Your task to perform on an android device: find snoozed emails in the gmail app Image 0: 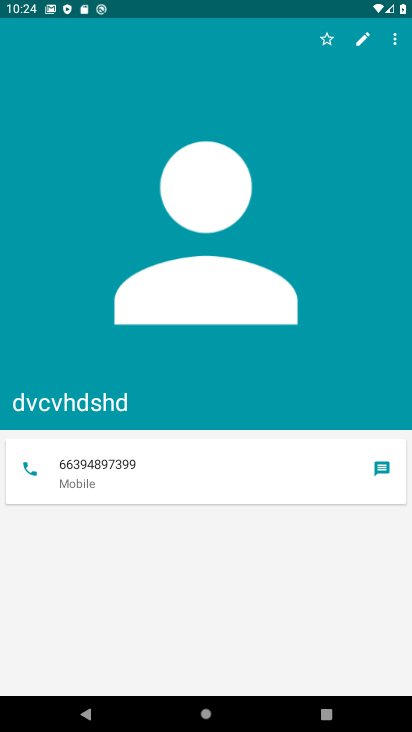
Step 0: press back button
Your task to perform on an android device: find snoozed emails in the gmail app Image 1: 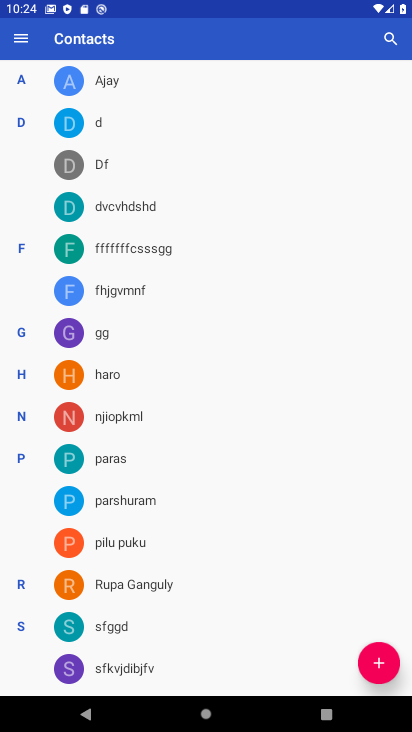
Step 1: press back button
Your task to perform on an android device: find snoozed emails in the gmail app Image 2: 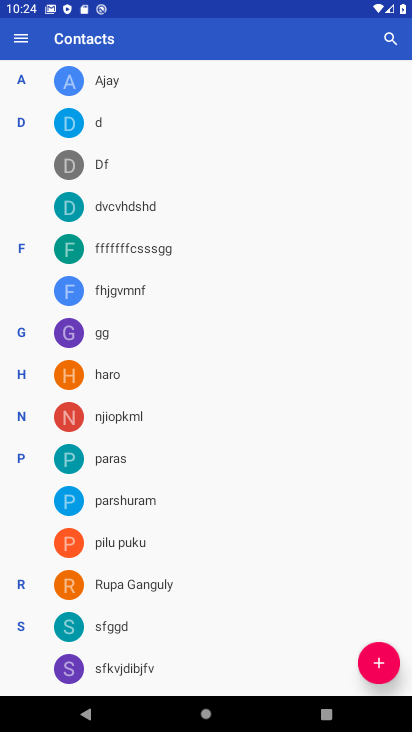
Step 2: press back button
Your task to perform on an android device: find snoozed emails in the gmail app Image 3: 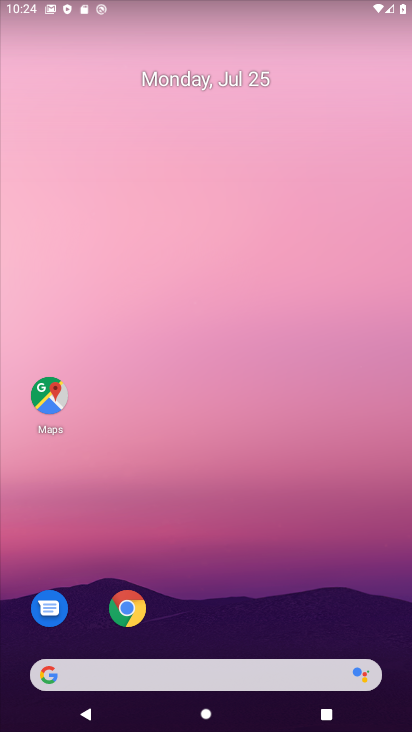
Step 3: drag from (216, 162) to (237, 47)
Your task to perform on an android device: find snoozed emails in the gmail app Image 4: 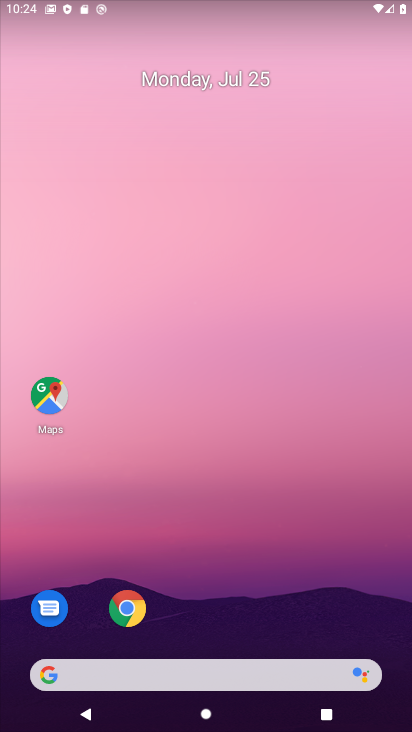
Step 4: drag from (271, 511) to (149, 40)
Your task to perform on an android device: find snoozed emails in the gmail app Image 5: 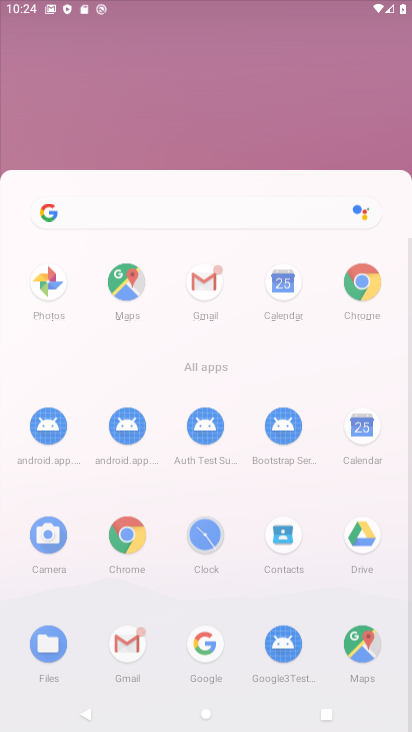
Step 5: drag from (215, 290) to (193, 33)
Your task to perform on an android device: find snoozed emails in the gmail app Image 6: 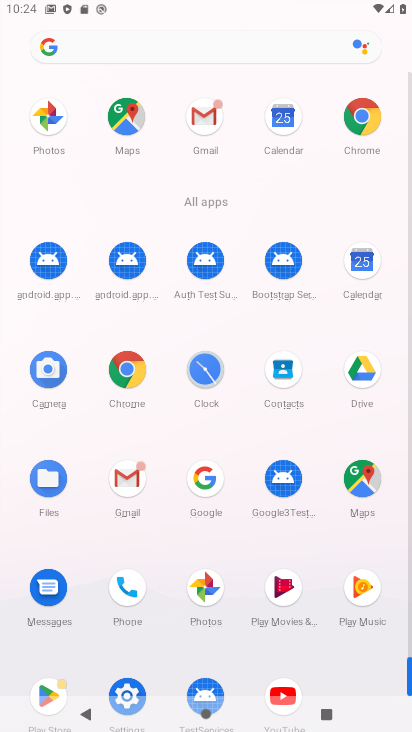
Step 6: drag from (277, 400) to (221, 26)
Your task to perform on an android device: find snoozed emails in the gmail app Image 7: 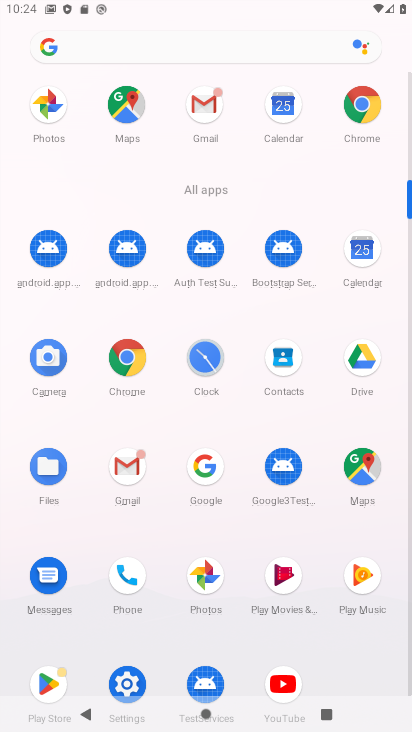
Step 7: click (127, 469)
Your task to perform on an android device: find snoozed emails in the gmail app Image 8: 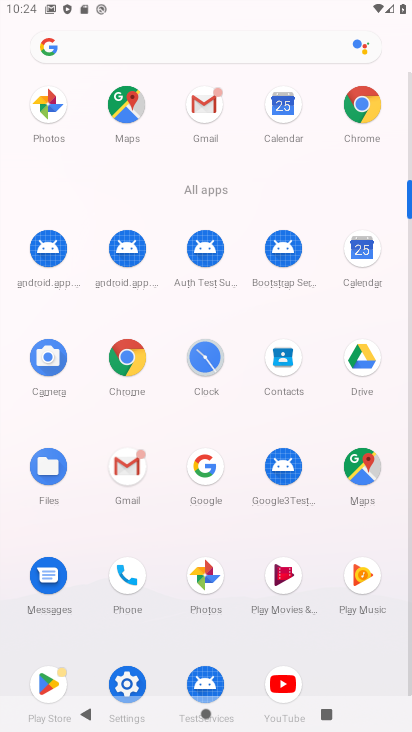
Step 8: click (134, 470)
Your task to perform on an android device: find snoozed emails in the gmail app Image 9: 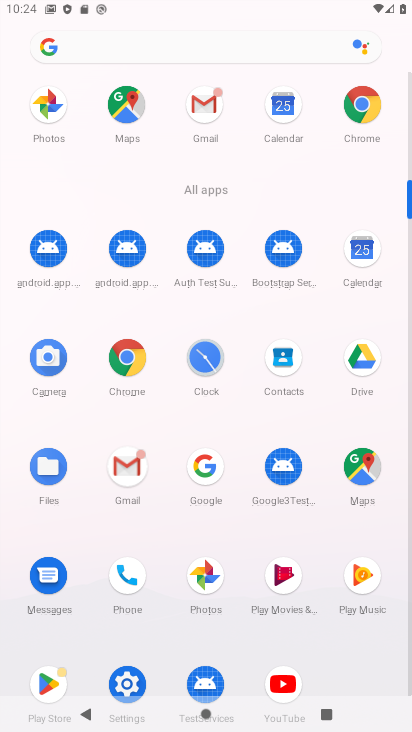
Step 9: click (134, 470)
Your task to perform on an android device: find snoozed emails in the gmail app Image 10: 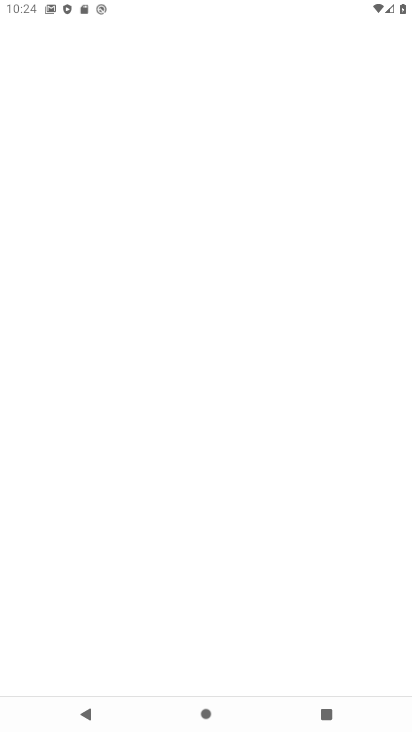
Step 10: click (130, 467)
Your task to perform on an android device: find snoozed emails in the gmail app Image 11: 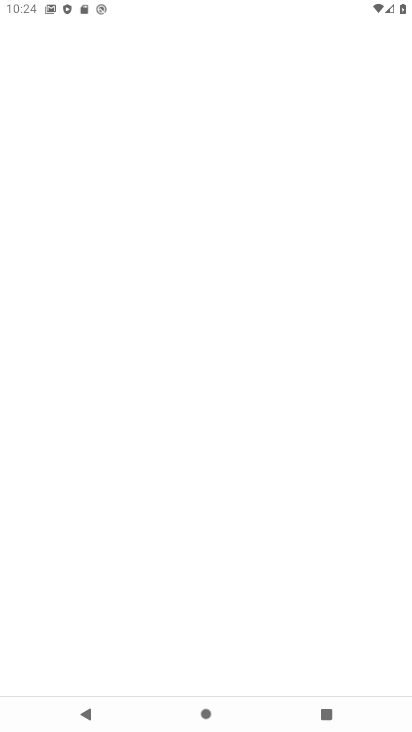
Step 11: click (130, 467)
Your task to perform on an android device: find snoozed emails in the gmail app Image 12: 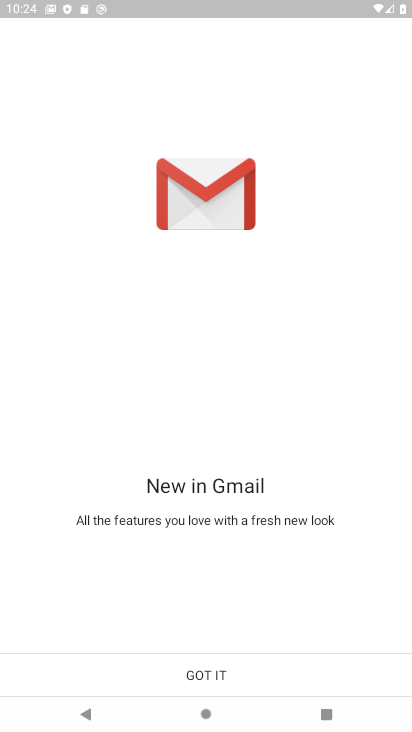
Step 12: click (216, 683)
Your task to perform on an android device: find snoozed emails in the gmail app Image 13: 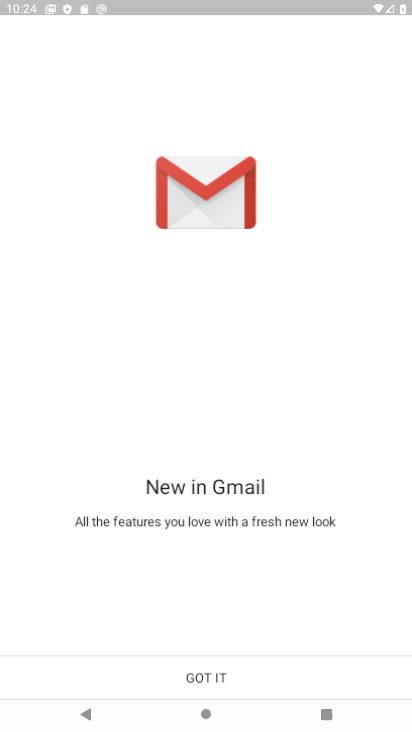
Step 13: click (216, 681)
Your task to perform on an android device: find snoozed emails in the gmail app Image 14: 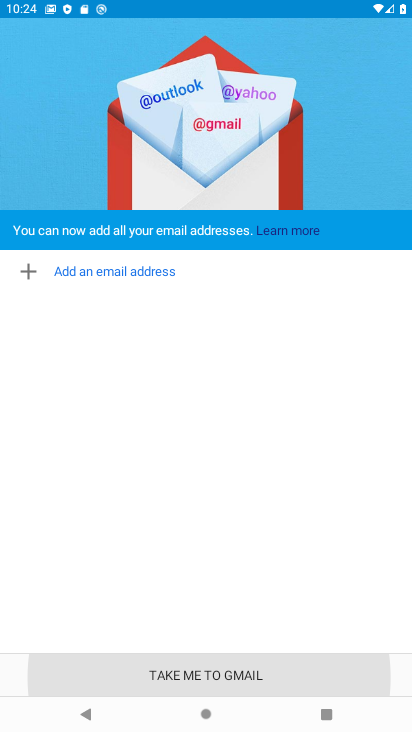
Step 14: click (218, 678)
Your task to perform on an android device: find snoozed emails in the gmail app Image 15: 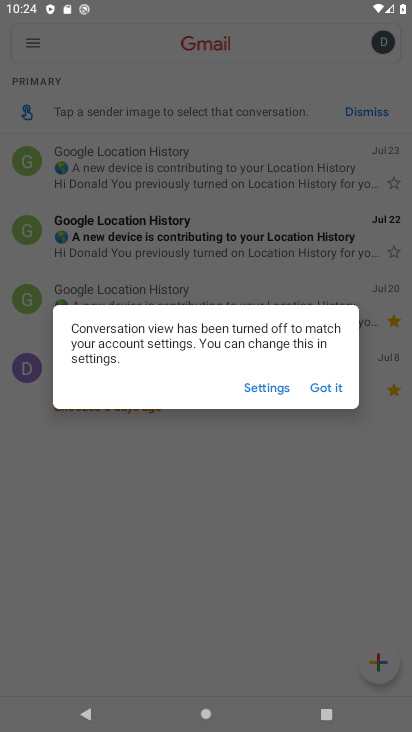
Step 15: click (324, 384)
Your task to perform on an android device: find snoozed emails in the gmail app Image 16: 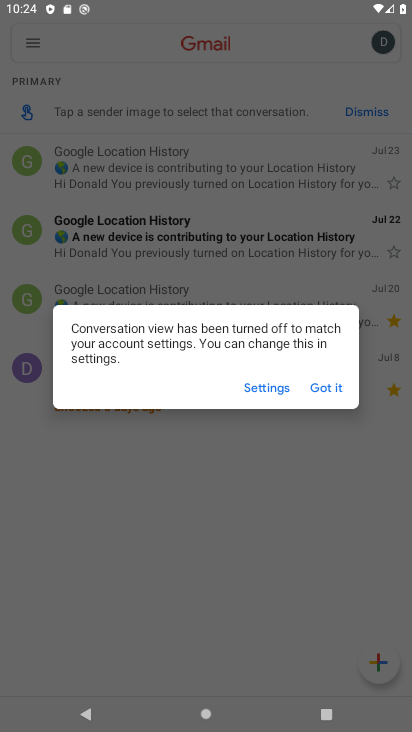
Step 16: click (325, 382)
Your task to perform on an android device: find snoozed emails in the gmail app Image 17: 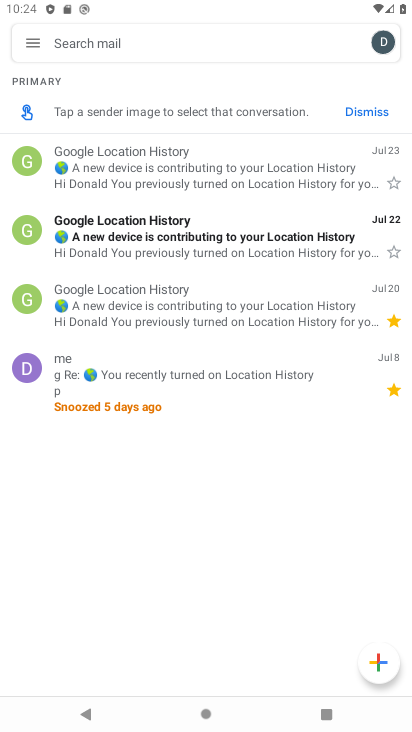
Step 17: click (41, 41)
Your task to perform on an android device: find snoozed emails in the gmail app Image 18: 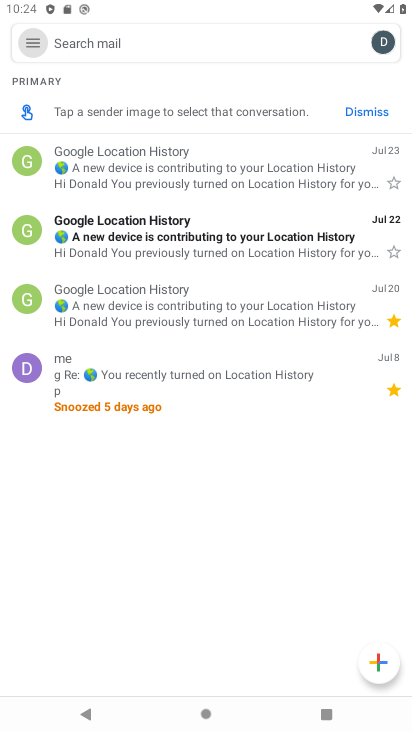
Step 18: click (41, 41)
Your task to perform on an android device: find snoozed emails in the gmail app Image 19: 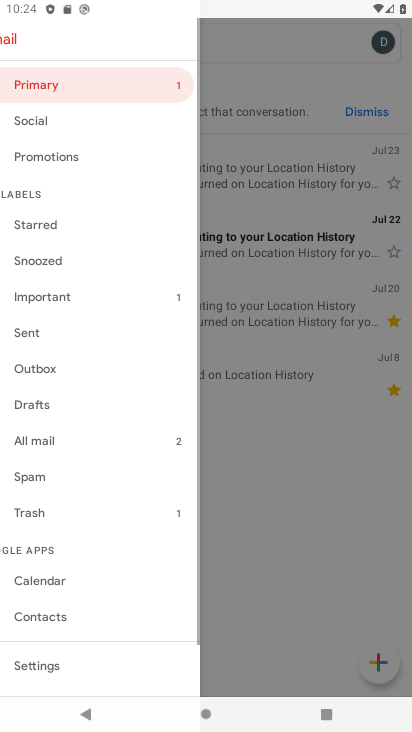
Step 19: click (41, 41)
Your task to perform on an android device: find snoozed emails in the gmail app Image 20: 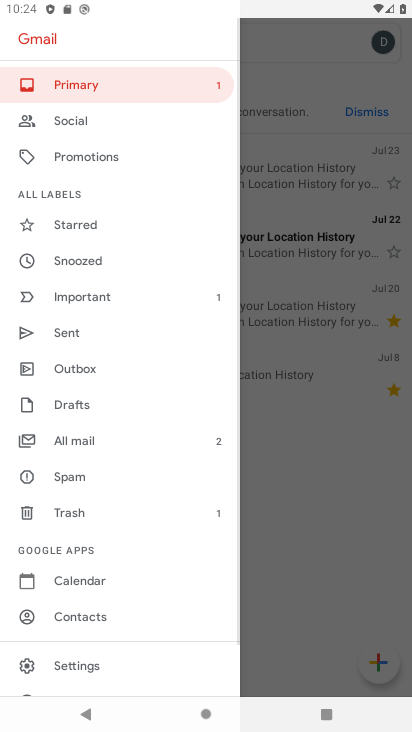
Step 20: click (78, 258)
Your task to perform on an android device: find snoozed emails in the gmail app Image 21: 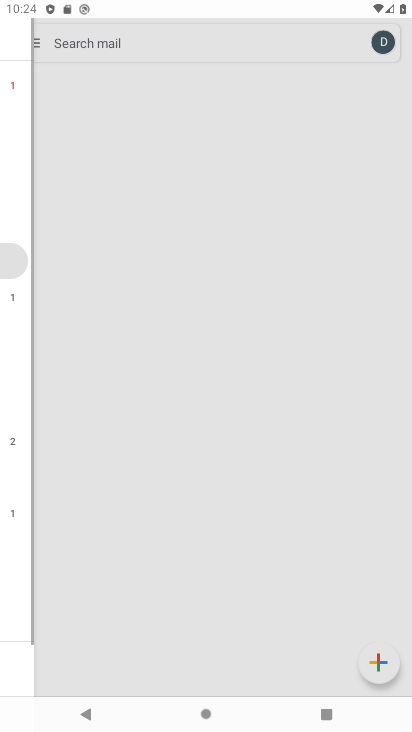
Step 21: click (82, 260)
Your task to perform on an android device: find snoozed emails in the gmail app Image 22: 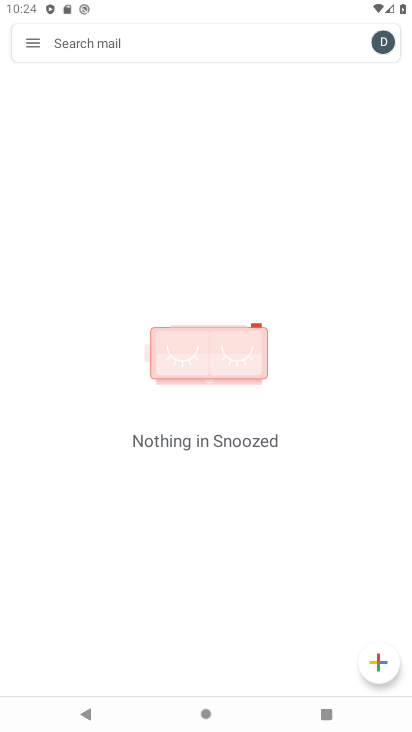
Step 22: task complete